Your task to perform on an android device: read, delete, or share a saved page in the chrome app Image 0: 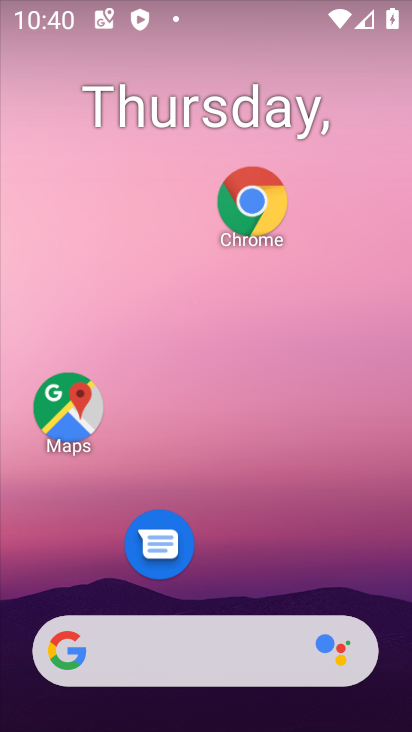
Step 0: click (252, 194)
Your task to perform on an android device: read, delete, or share a saved page in the chrome app Image 1: 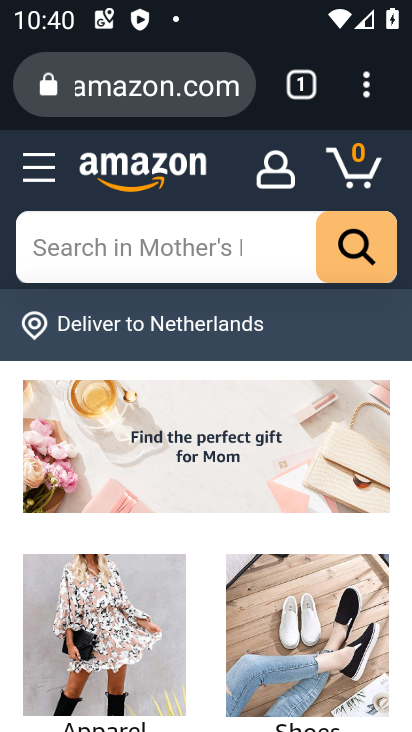
Step 1: click (364, 88)
Your task to perform on an android device: read, delete, or share a saved page in the chrome app Image 2: 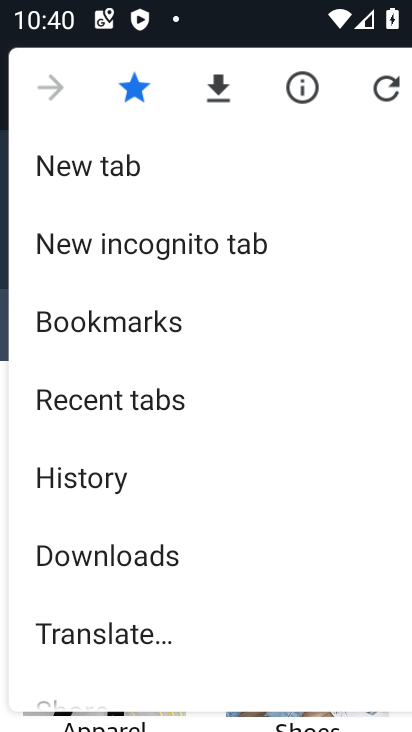
Step 2: click (191, 553)
Your task to perform on an android device: read, delete, or share a saved page in the chrome app Image 3: 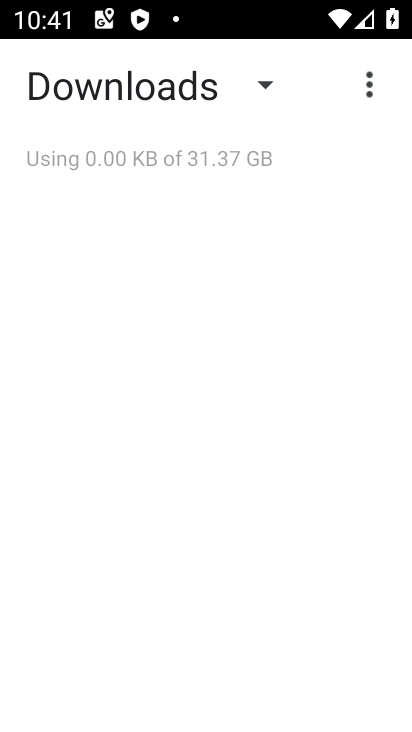
Step 3: task complete